Your task to perform on an android device: empty trash in google photos Image 0: 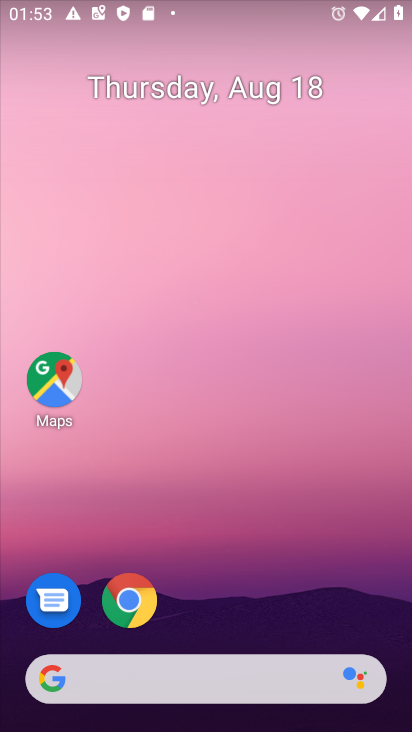
Step 0: press home button
Your task to perform on an android device: empty trash in google photos Image 1: 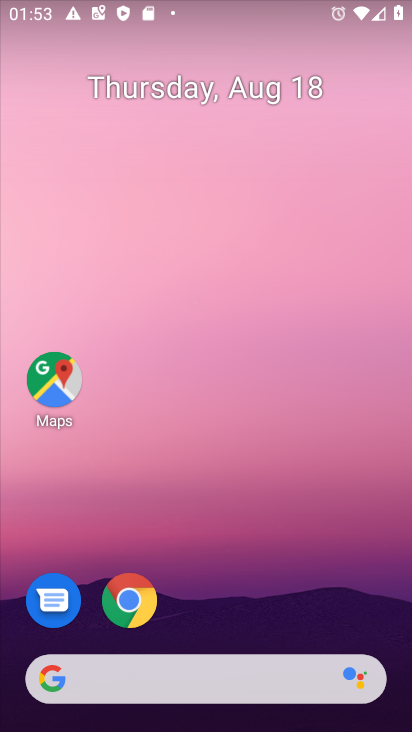
Step 1: drag from (259, 627) to (238, 156)
Your task to perform on an android device: empty trash in google photos Image 2: 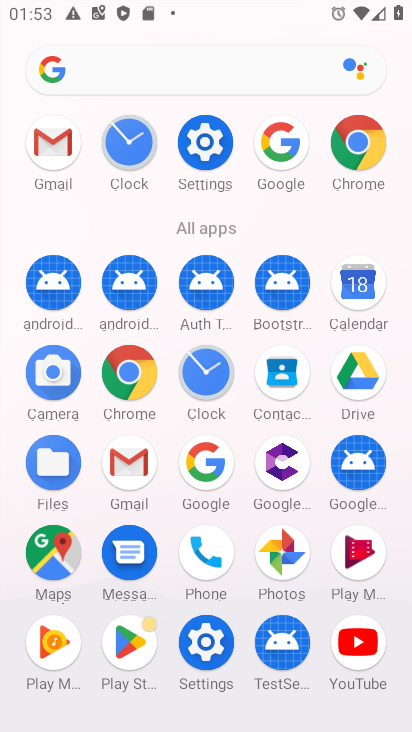
Step 2: click (292, 554)
Your task to perform on an android device: empty trash in google photos Image 3: 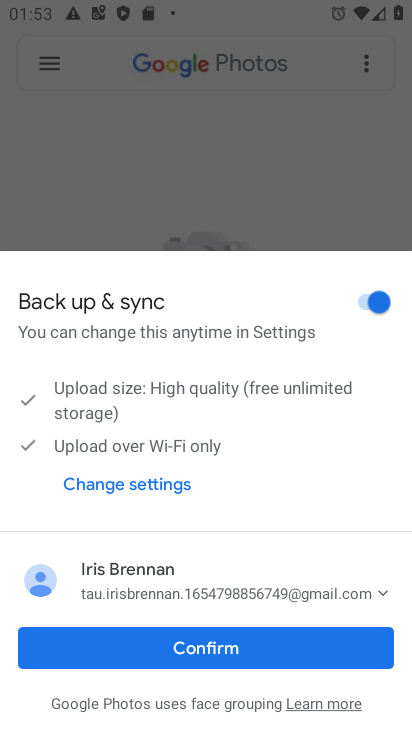
Step 3: click (240, 651)
Your task to perform on an android device: empty trash in google photos Image 4: 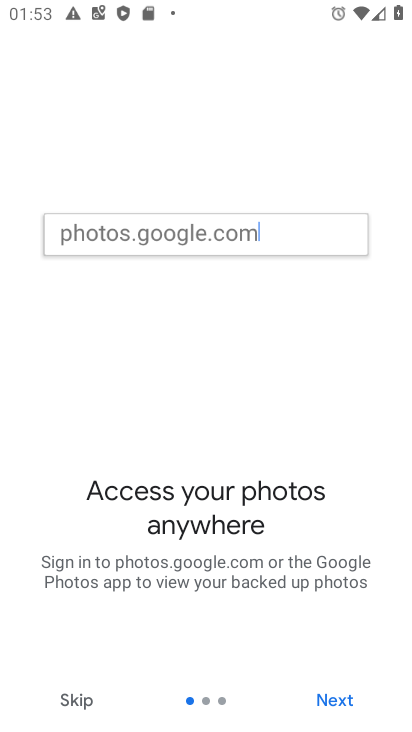
Step 4: click (329, 690)
Your task to perform on an android device: empty trash in google photos Image 5: 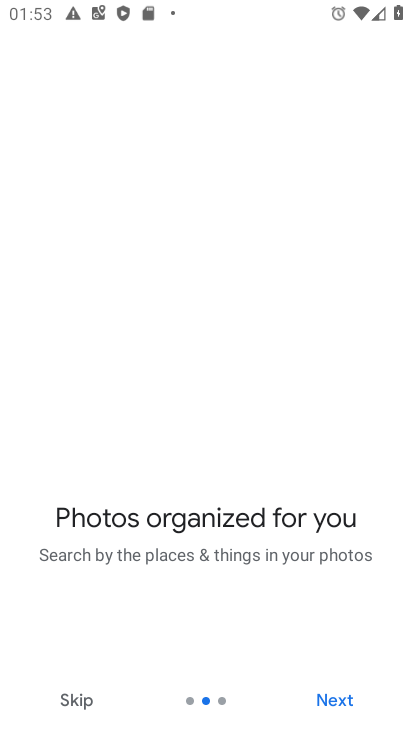
Step 5: click (333, 702)
Your task to perform on an android device: empty trash in google photos Image 6: 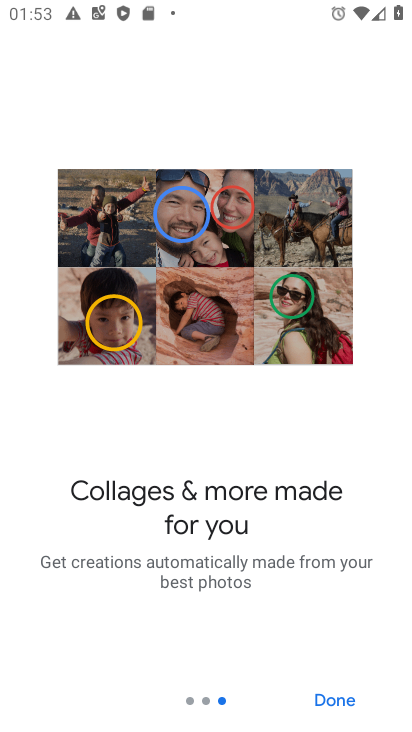
Step 6: click (332, 701)
Your task to perform on an android device: empty trash in google photos Image 7: 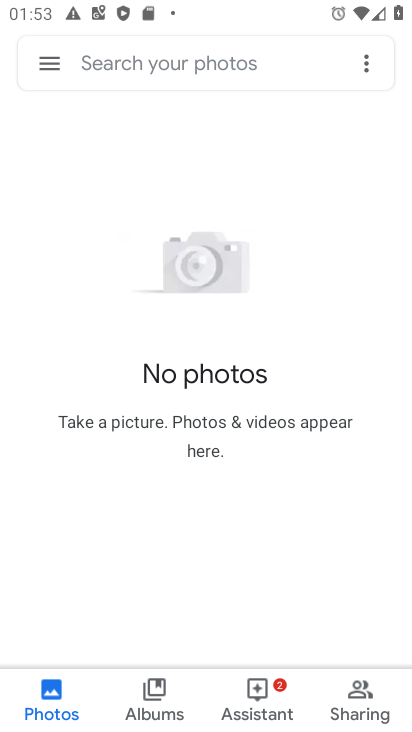
Step 7: click (365, 62)
Your task to perform on an android device: empty trash in google photos Image 8: 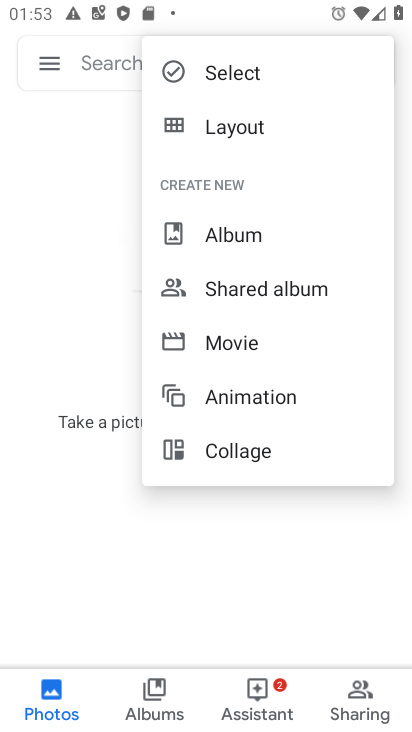
Step 8: click (53, 60)
Your task to perform on an android device: empty trash in google photos Image 9: 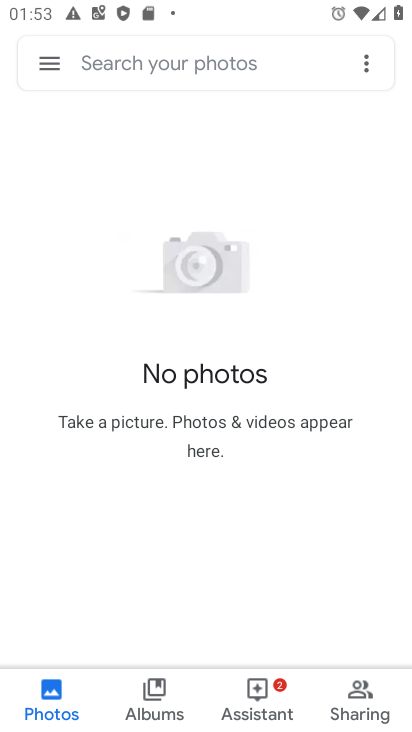
Step 9: click (42, 67)
Your task to perform on an android device: empty trash in google photos Image 10: 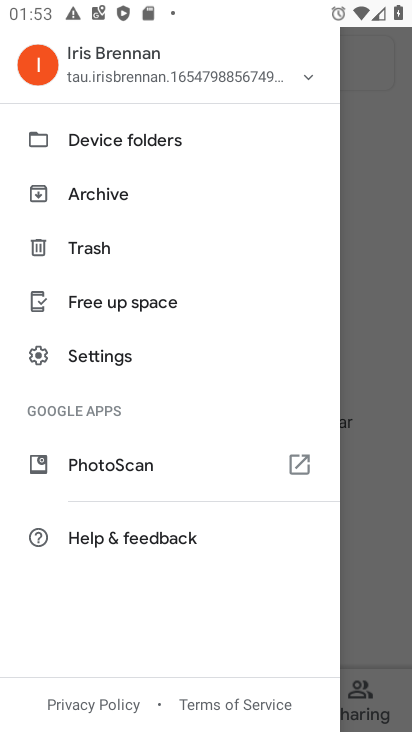
Step 10: click (88, 246)
Your task to perform on an android device: empty trash in google photos Image 11: 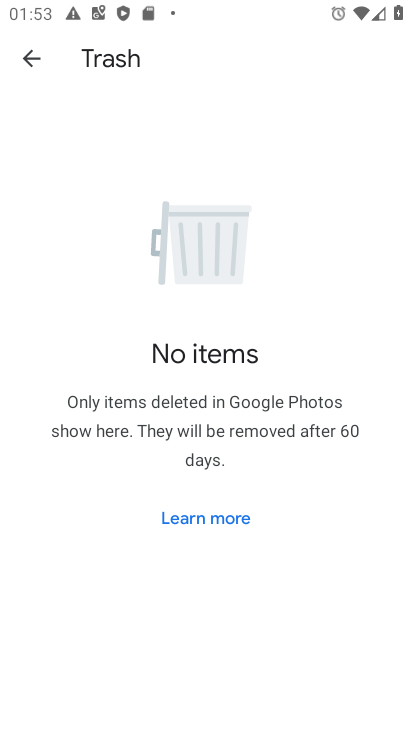
Step 11: task complete